Your task to perform on an android device: delete browsing data in the chrome app Image 0: 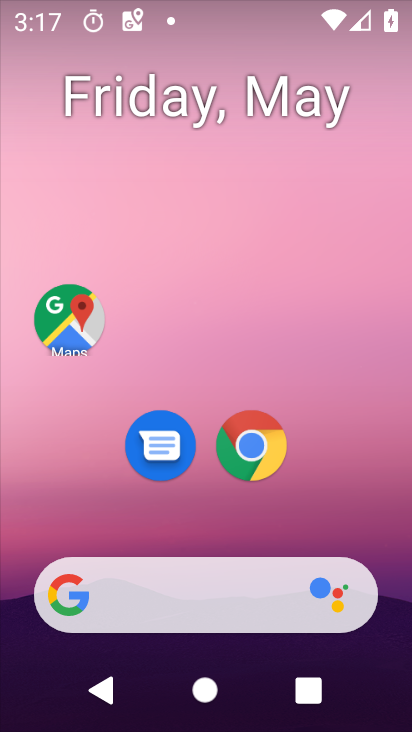
Step 0: drag from (223, 670) to (360, 122)
Your task to perform on an android device: delete browsing data in the chrome app Image 1: 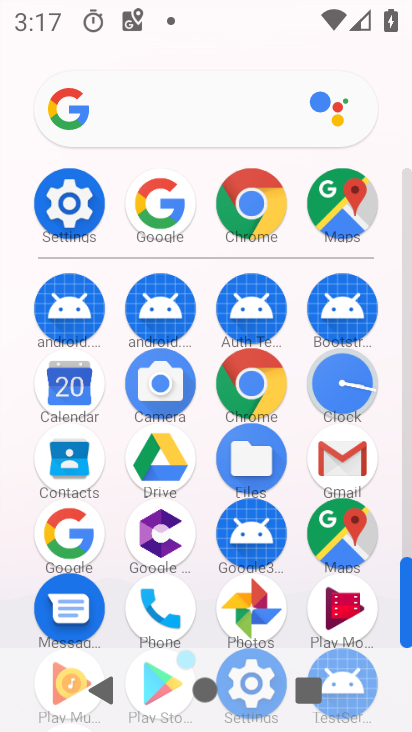
Step 1: click (263, 379)
Your task to perform on an android device: delete browsing data in the chrome app Image 2: 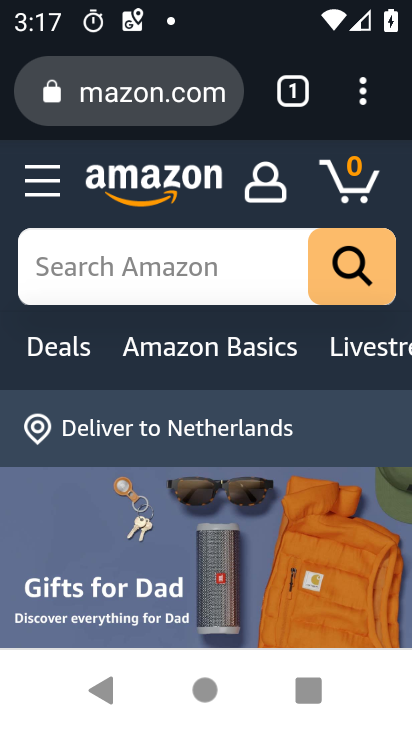
Step 2: click (367, 108)
Your task to perform on an android device: delete browsing data in the chrome app Image 3: 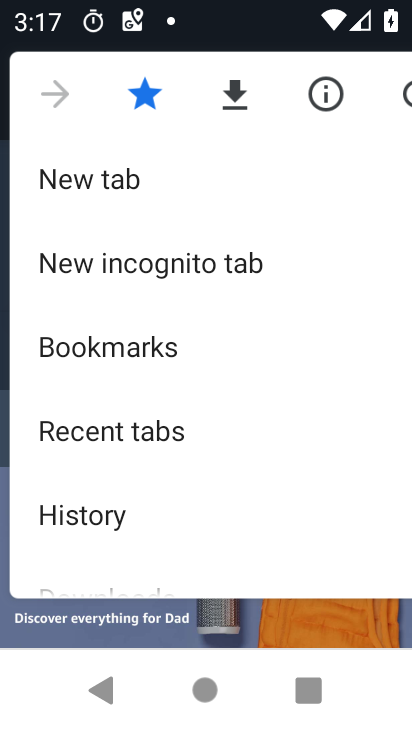
Step 3: drag from (187, 373) to (270, 109)
Your task to perform on an android device: delete browsing data in the chrome app Image 4: 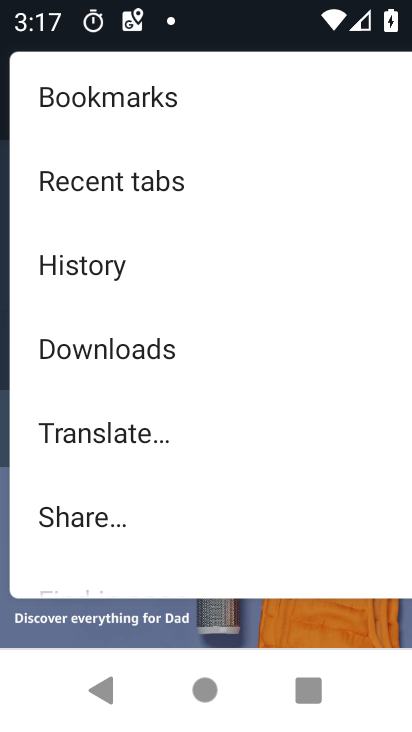
Step 4: drag from (101, 465) to (195, 181)
Your task to perform on an android device: delete browsing data in the chrome app Image 5: 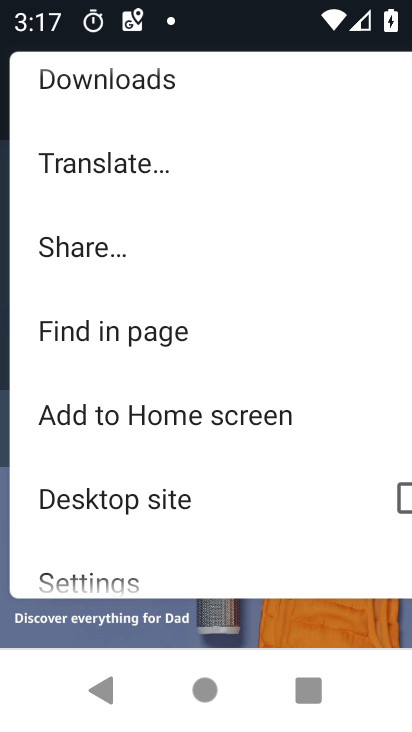
Step 5: drag from (270, 267) to (329, 66)
Your task to perform on an android device: delete browsing data in the chrome app Image 6: 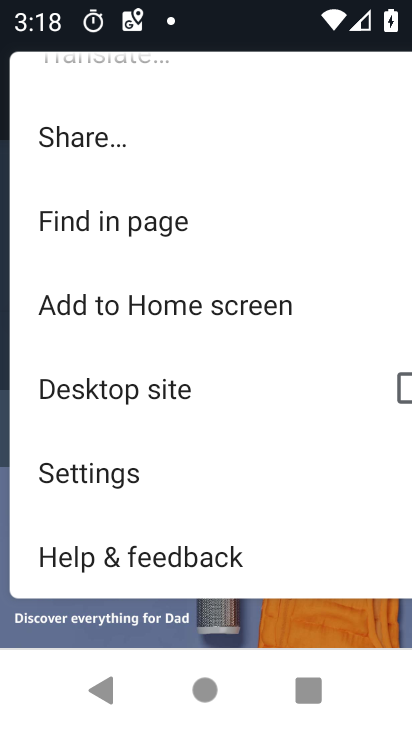
Step 6: drag from (134, 477) to (170, 234)
Your task to perform on an android device: delete browsing data in the chrome app Image 7: 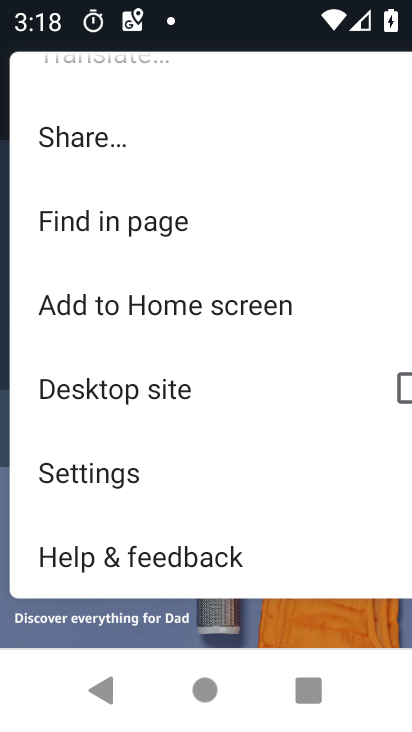
Step 7: drag from (169, 309) to (147, 592)
Your task to perform on an android device: delete browsing data in the chrome app Image 8: 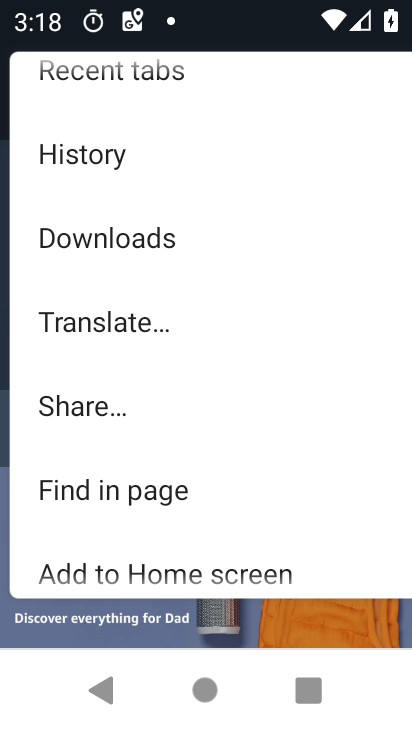
Step 8: click (161, 167)
Your task to perform on an android device: delete browsing data in the chrome app Image 9: 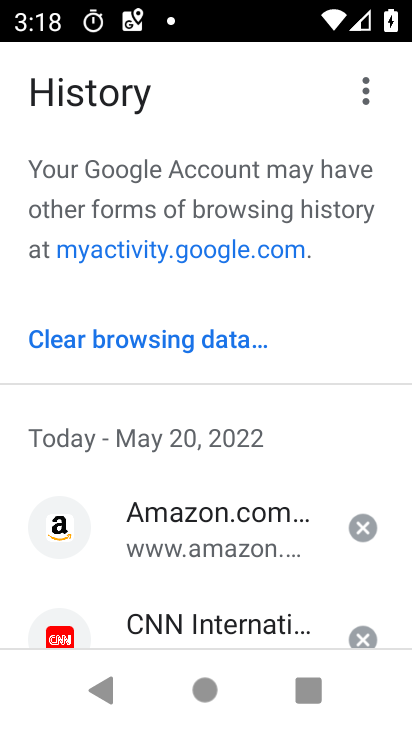
Step 9: click (162, 341)
Your task to perform on an android device: delete browsing data in the chrome app Image 10: 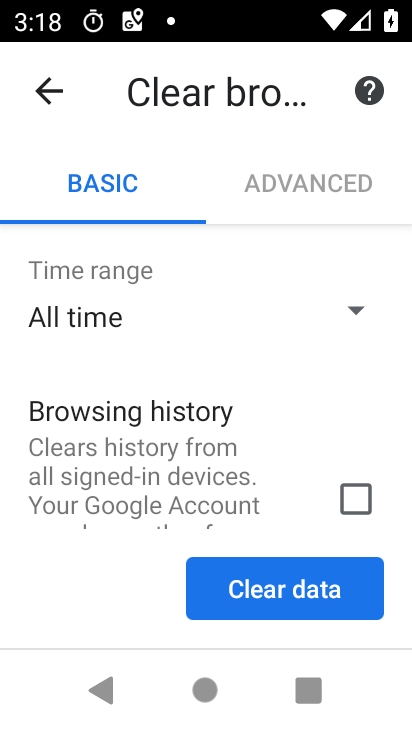
Step 10: click (361, 498)
Your task to perform on an android device: delete browsing data in the chrome app Image 11: 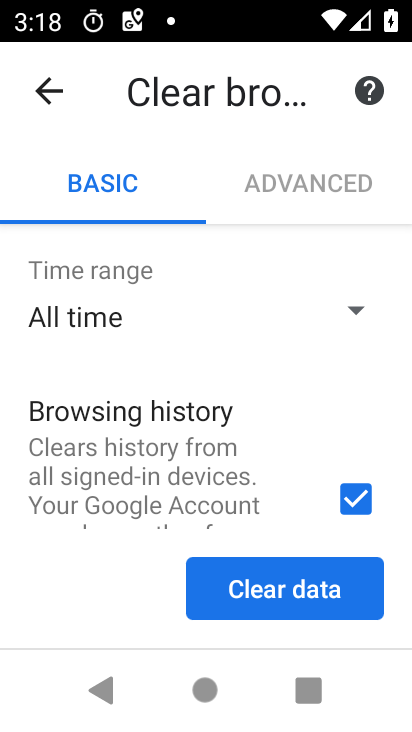
Step 11: click (283, 599)
Your task to perform on an android device: delete browsing data in the chrome app Image 12: 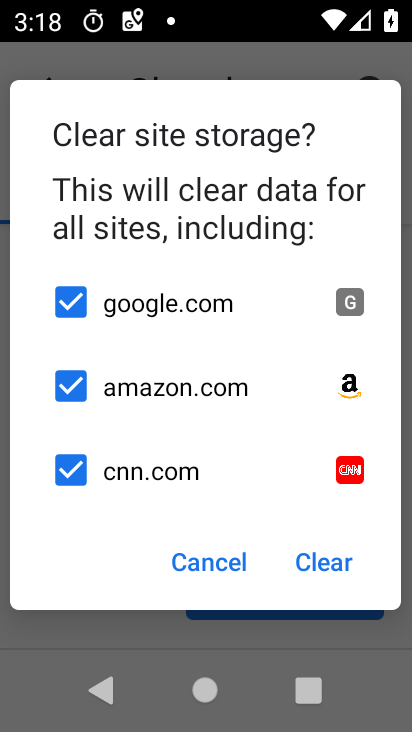
Step 12: click (317, 560)
Your task to perform on an android device: delete browsing data in the chrome app Image 13: 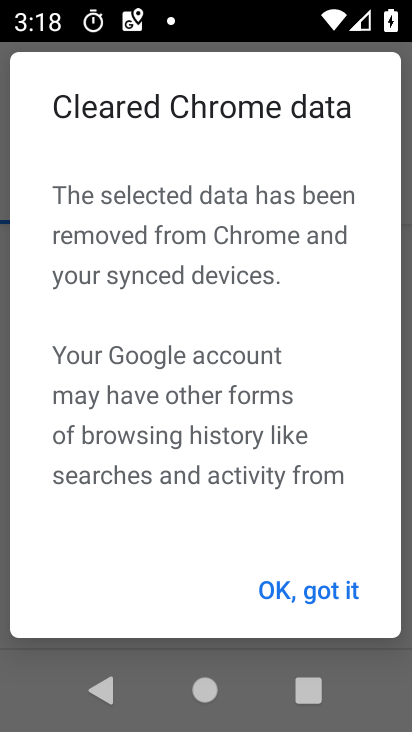
Step 13: click (325, 605)
Your task to perform on an android device: delete browsing data in the chrome app Image 14: 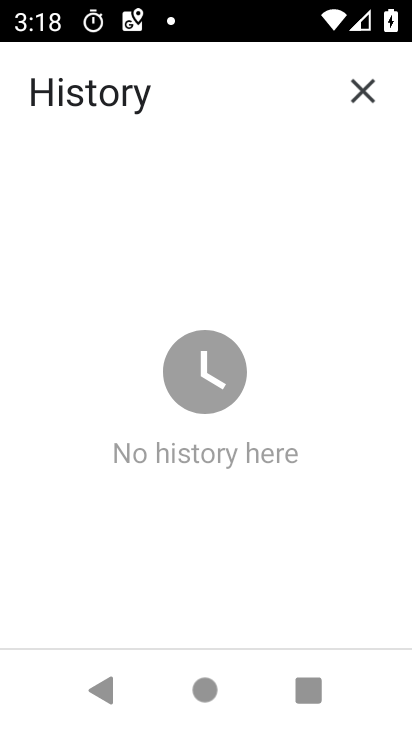
Step 14: task complete